Your task to perform on an android device: Do I have any events this weekend? Image 0: 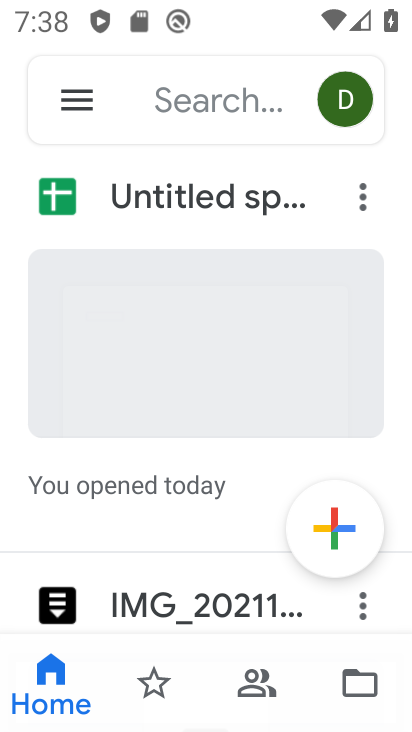
Step 0: press home button
Your task to perform on an android device: Do I have any events this weekend? Image 1: 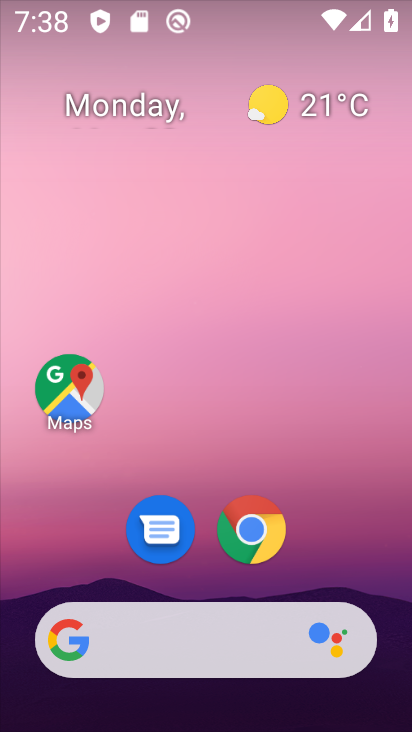
Step 1: drag from (350, 582) to (317, 1)
Your task to perform on an android device: Do I have any events this weekend? Image 2: 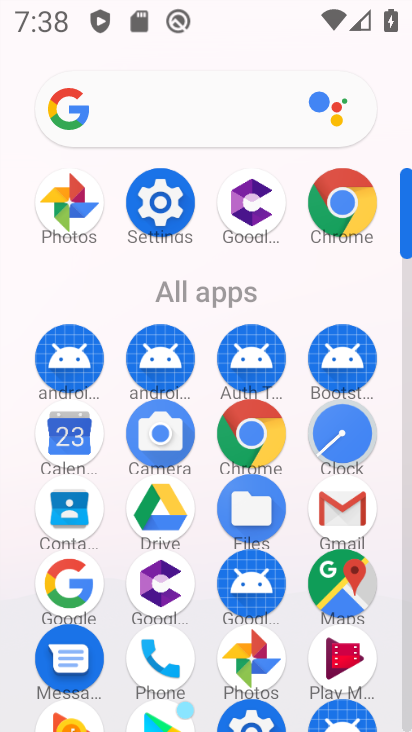
Step 2: click (64, 434)
Your task to perform on an android device: Do I have any events this weekend? Image 3: 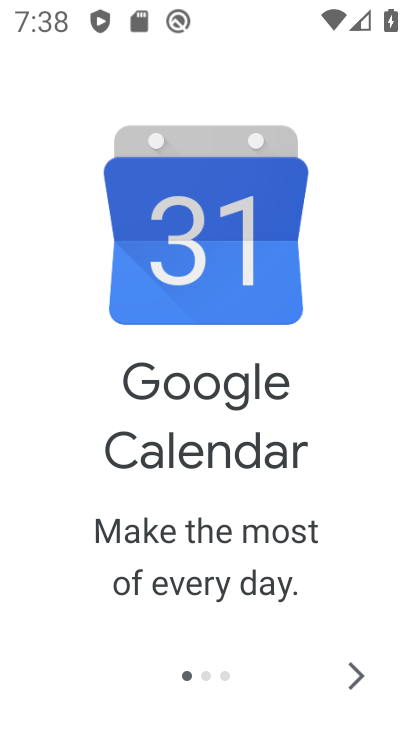
Step 3: click (348, 666)
Your task to perform on an android device: Do I have any events this weekend? Image 4: 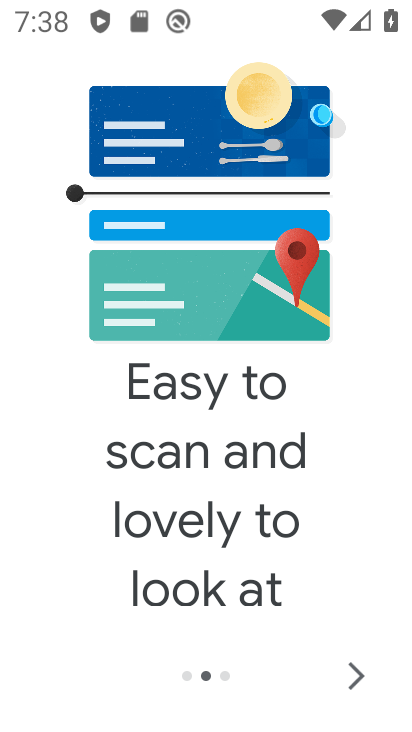
Step 4: click (349, 661)
Your task to perform on an android device: Do I have any events this weekend? Image 5: 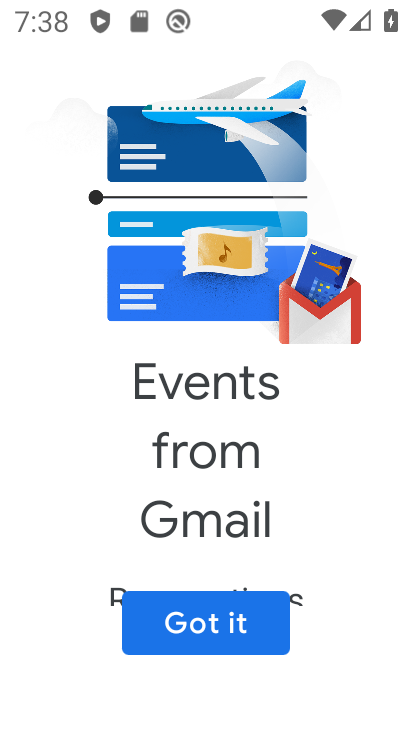
Step 5: click (196, 621)
Your task to perform on an android device: Do I have any events this weekend? Image 6: 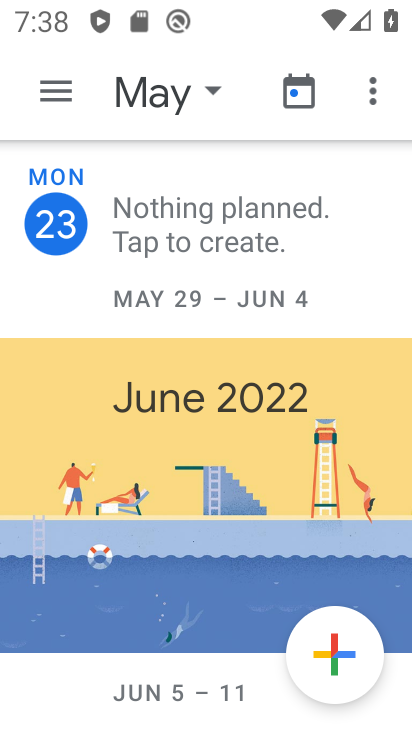
Step 6: click (180, 107)
Your task to perform on an android device: Do I have any events this weekend? Image 7: 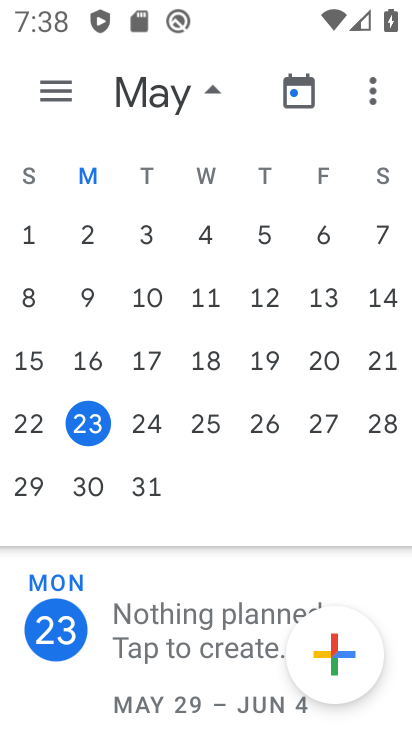
Step 7: click (366, 428)
Your task to perform on an android device: Do I have any events this weekend? Image 8: 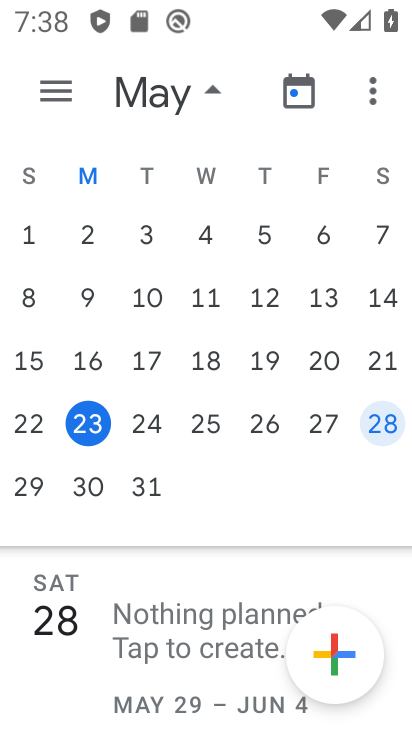
Step 8: task complete